Your task to perform on an android device: Search for "logitech g903" on ebay.com, select the first entry, and add it to the cart. Image 0: 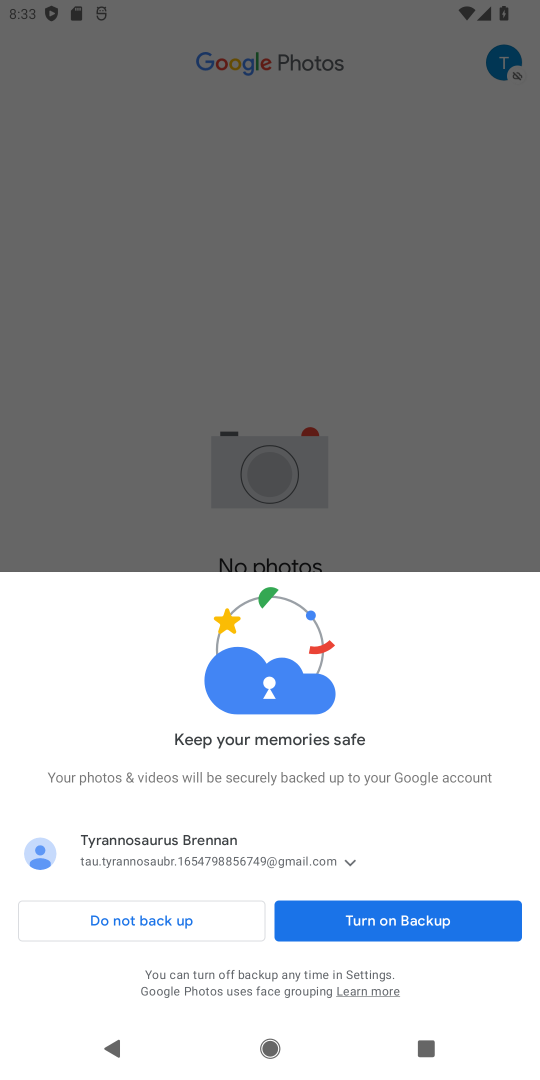
Step 0: press home button
Your task to perform on an android device: Search for "logitech g903" on ebay.com, select the first entry, and add it to the cart. Image 1: 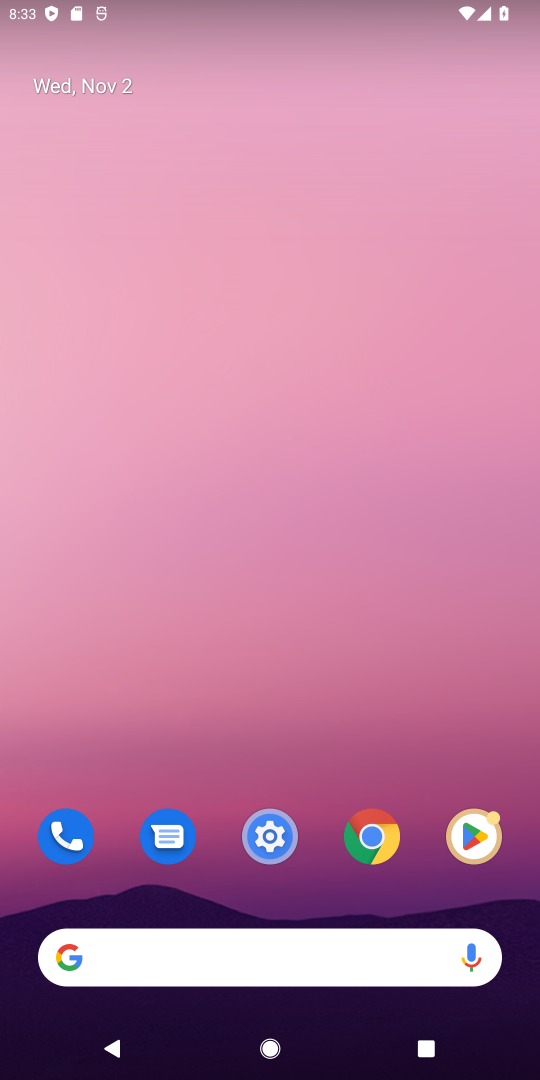
Step 1: click (363, 834)
Your task to perform on an android device: Search for "logitech g903" on ebay.com, select the first entry, and add it to the cart. Image 2: 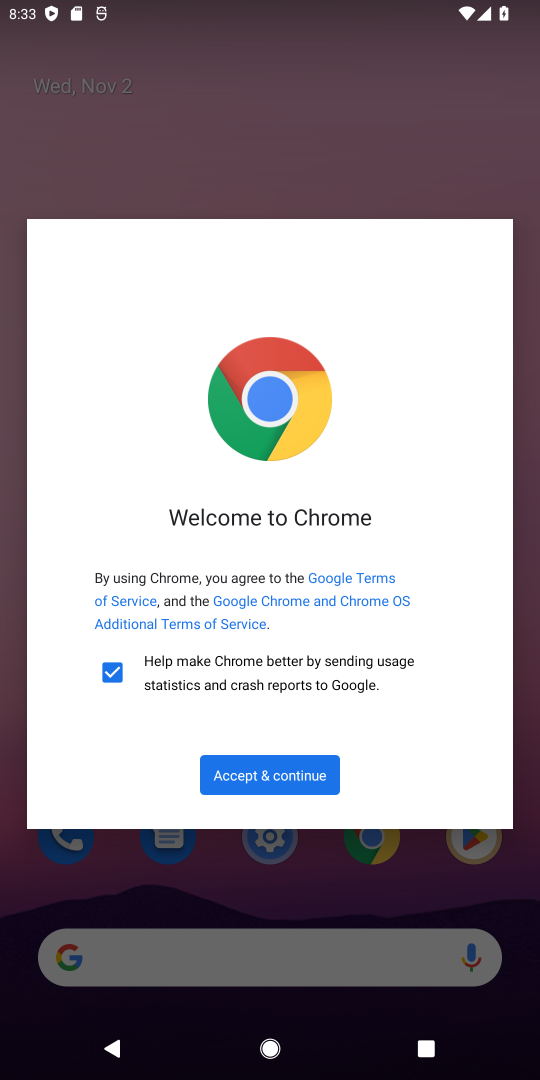
Step 2: click (266, 774)
Your task to perform on an android device: Search for "logitech g903" on ebay.com, select the first entry, and add it to the cart. Image 3: 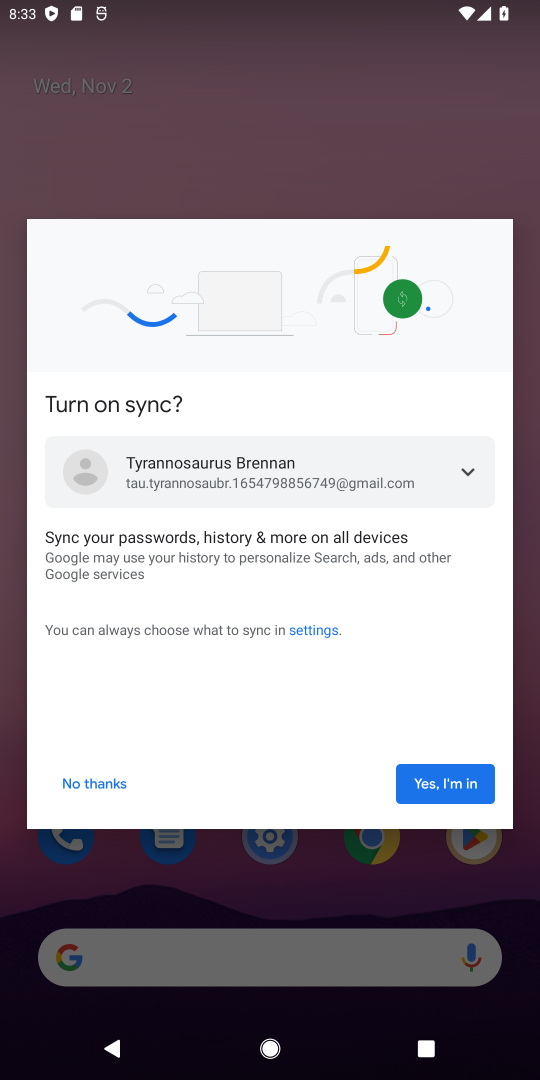
Step 3: click (442, 785)
Your task to perform on an android device: Search for "logitech g903" on ebay.com, select the first entry, and add it to the cart. Image 4: 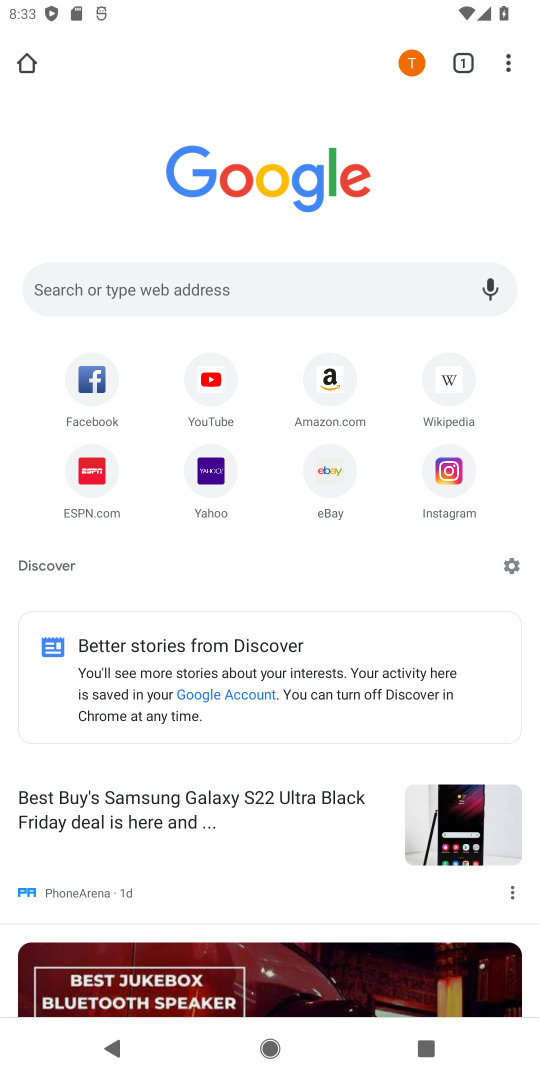
Step 4: click (105, 283)
Your task to perform on an android device: Search for "logitech g903" on ebay.com, select the first entry, and add it to the cart. Image 5: 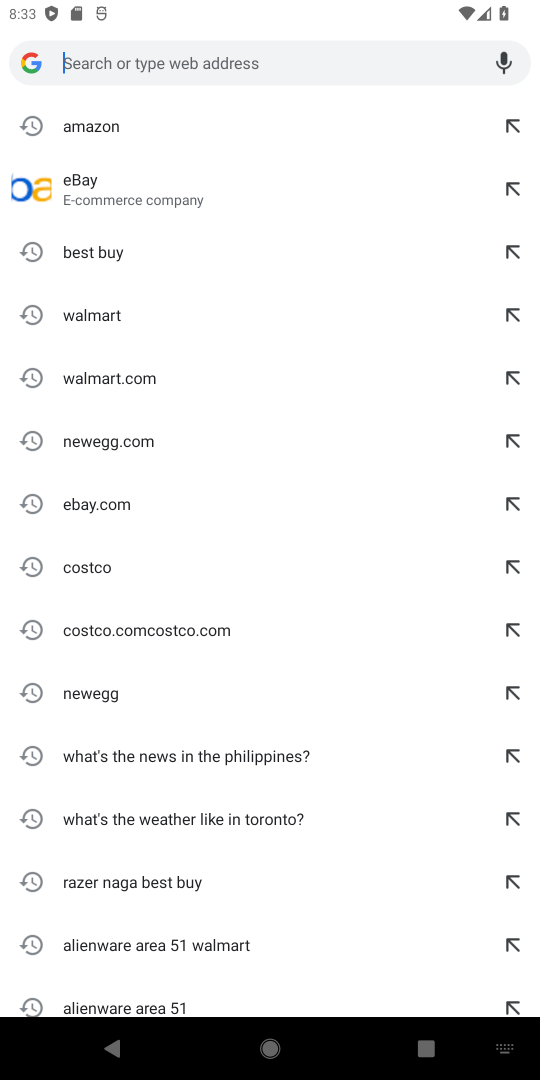
Step 5: click (102, 508)
Your task to perform on an android device: Search for "logitech g903" on ebay.com, select the first entry, and add it to the cart. Image 6: 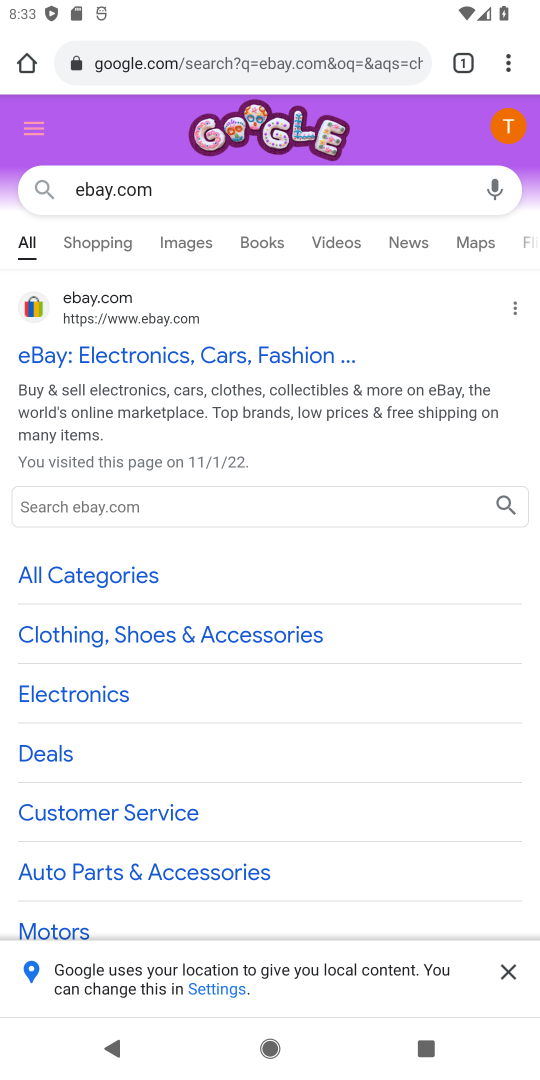
Step 6: click (138, 349)
Your task to perform on an android device: Search for "logitech g903" on ebay.com, select the first entry, and add it to the cart. Image 7: 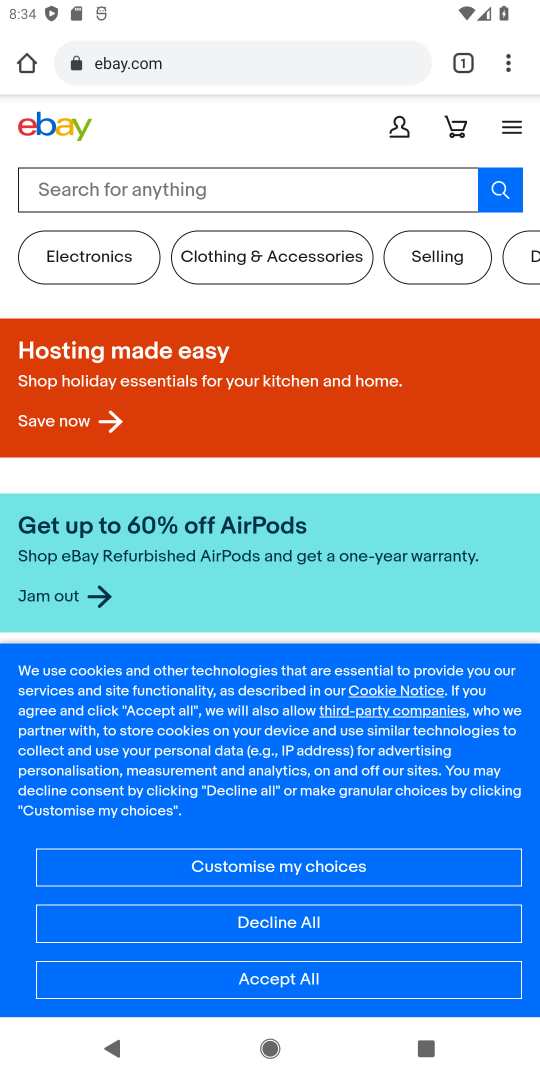
Step 7: click (158, 183)
Your task to perform on an android device: Search for "logitech g903" on ebay.com, select the first entry, and add it to the cart. Image 8: 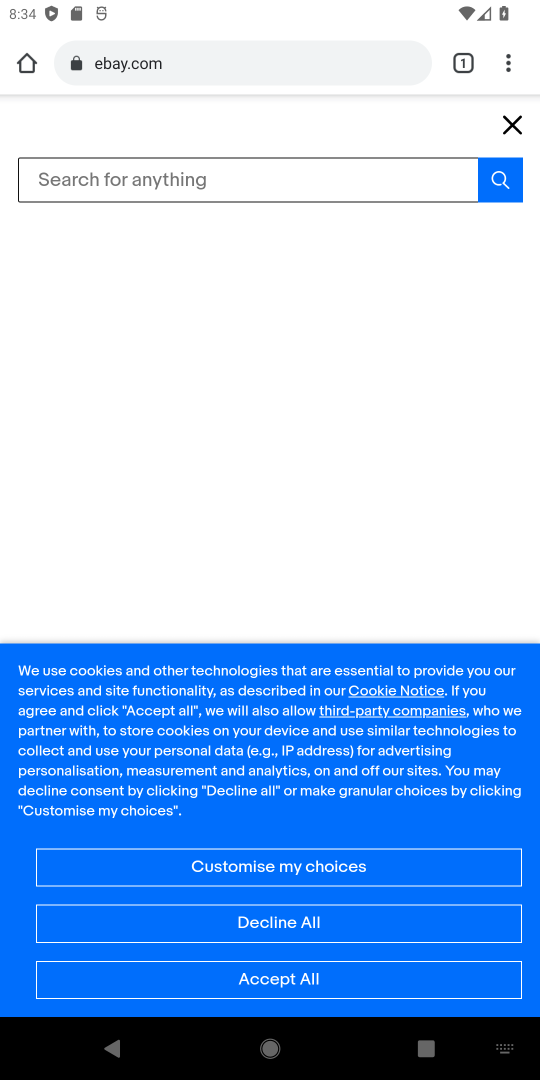
Step 8: type "logitech g903"
Your task to perform on an android device: Search for "logitech g903" on ebay.com, select the first entry, and add it to the cart. Image 9: 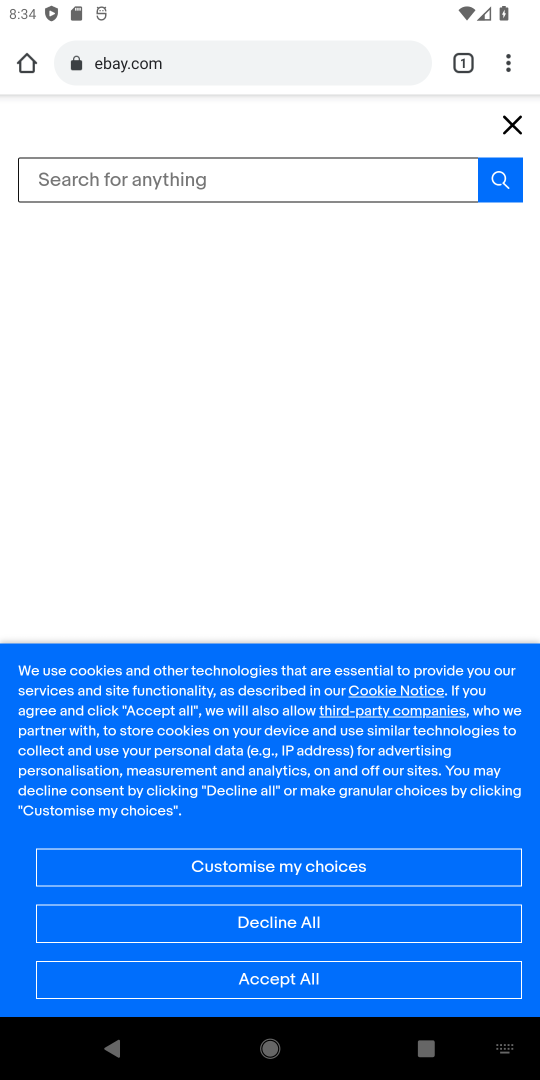
Step 9: click (284, 975)
Your task to perform on an android device: Search for "logitech g903" on ebay.com, select the first entry, and add it to the cart. Image 10: 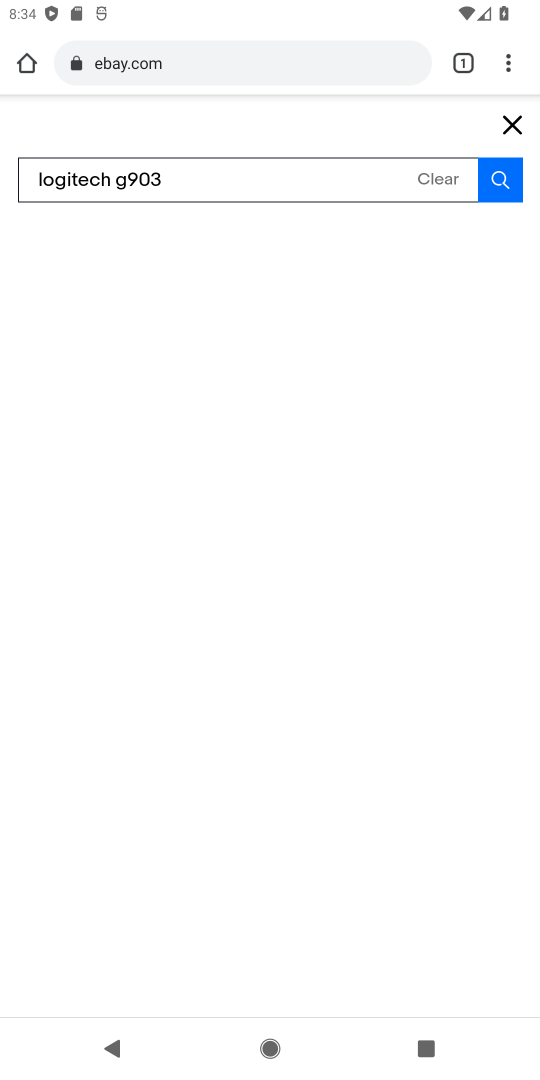
Step 10: click (496, 180)
Your task to perform on an android device: Search for "logitech g903" on ebay.com, select the first entry, and add it to the cart. Image 11: 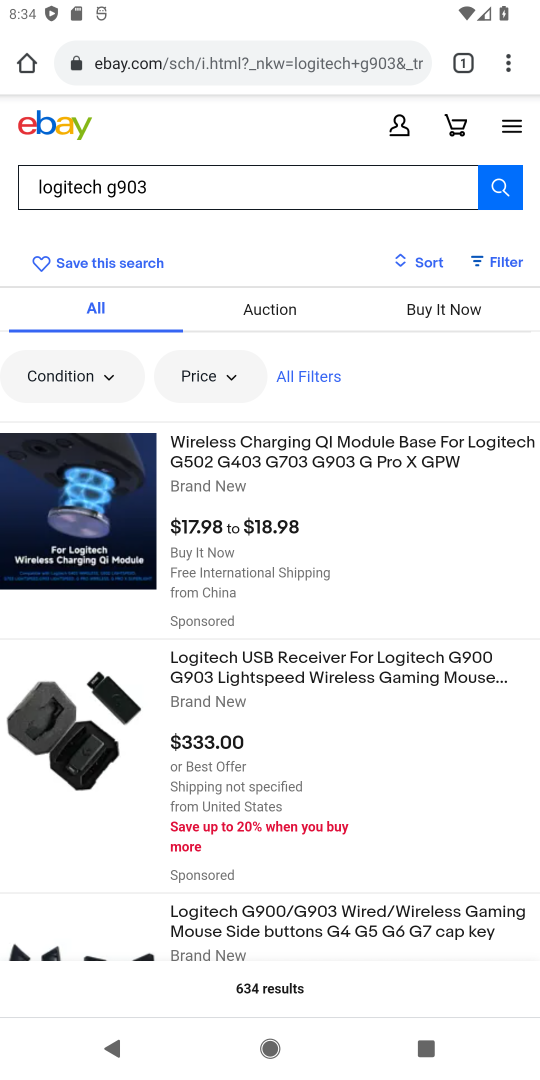
Step 11: drag from (344, 876) to (351, 586)
Your task to perform on an android device: Search for "logitech g903" on ebay.com, select the first entry, and add it to the cart. Image 12: 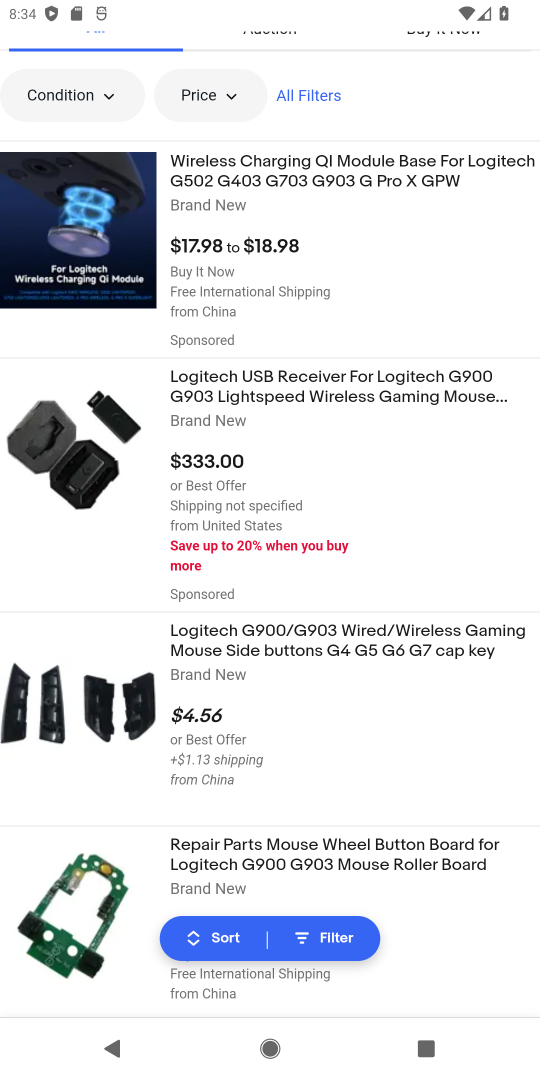
Step 12: click (263, 641)
Your task to perform on an android device: Search for "logitech g903" on ebay.com, select the first entry, and add it to the cart. Image 13: 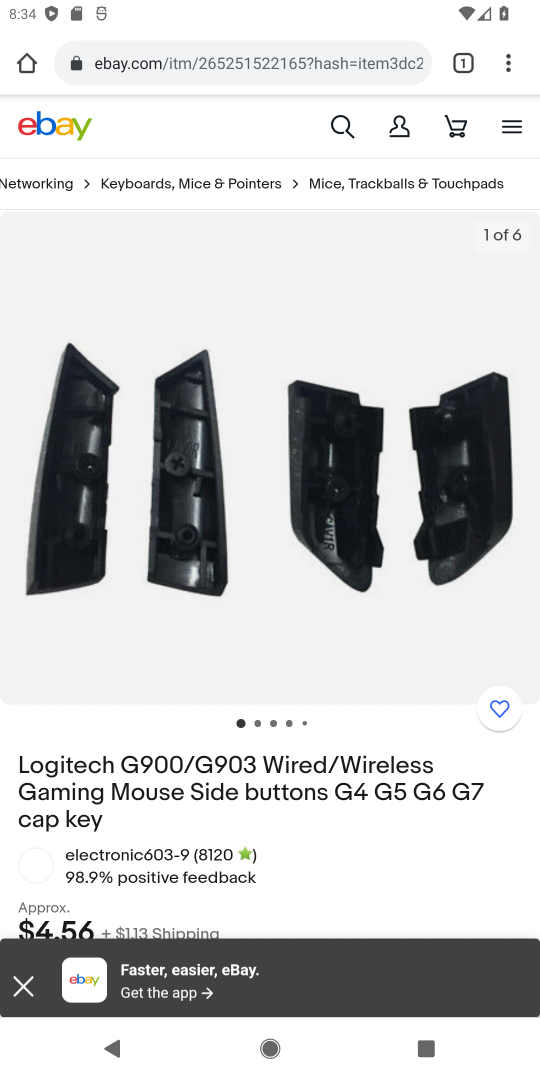
Step 13: drag from (317, 854) to (326, 548)
Your task to perform on an android device: Search for "logitech g903" on ebay.com, select the first entry, and add it to the cart. Image 14: 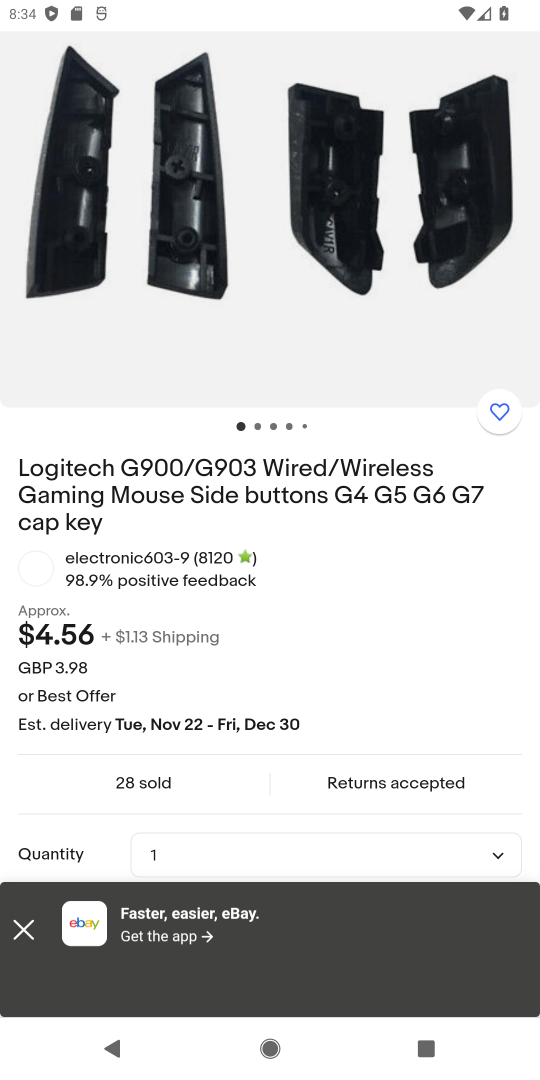
Step 14: drag from (307, 790) to (302, 459)
Your task to perform on an android device: Search for "logitech g903" on ebay.com, select the first entry, and add it to the cart. Image 15: 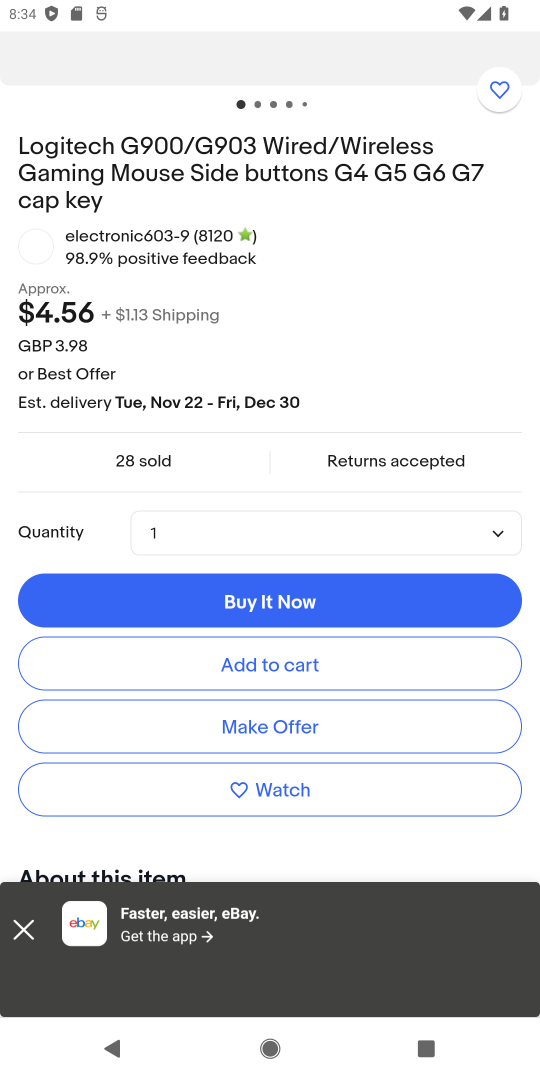
Step 15: click (265, 664)
Your task to perform on an android device: Search for "logitech g903" on ebay.com, select the first entry, and add it to the cart. Image 16: 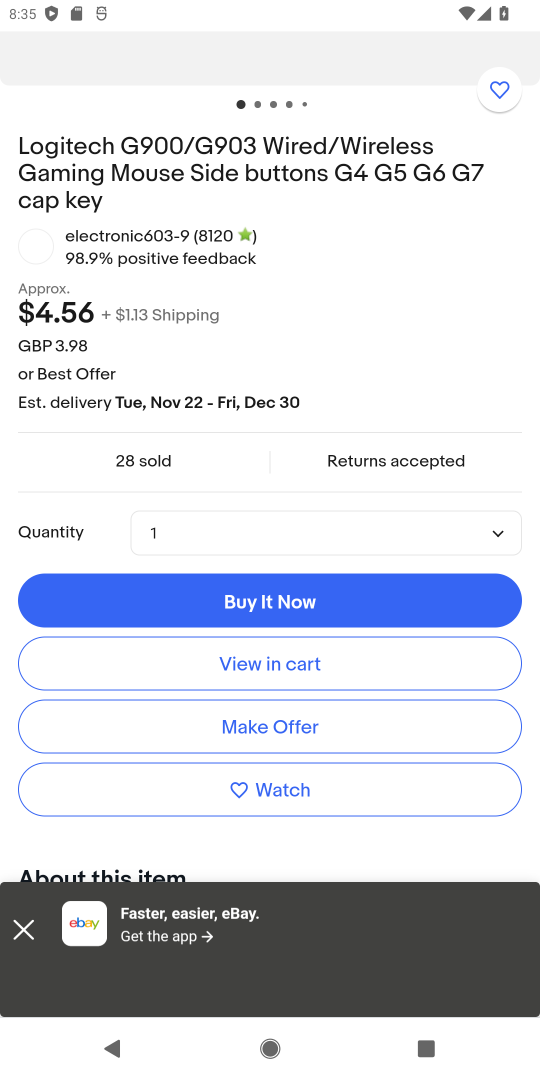
Step 16: task complete